Your task to perform on an android device: open app "Speedtest by Ookla" (install if not already installed) Image 0: 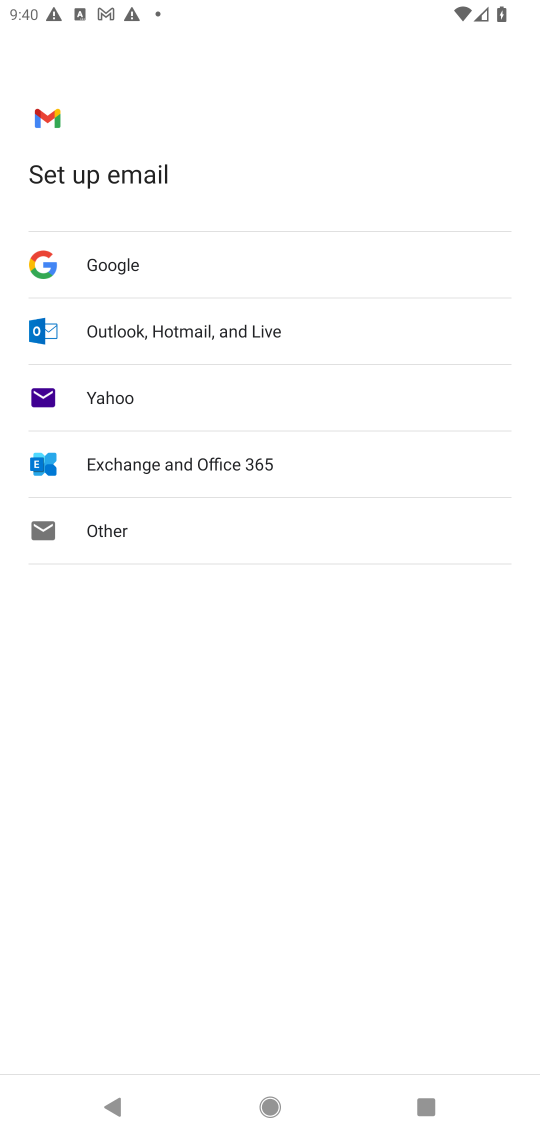
Step 0: press home button
Your task to perform on an android device: open app "Speedtest by Ookla" (install if not already installed) Image 1: 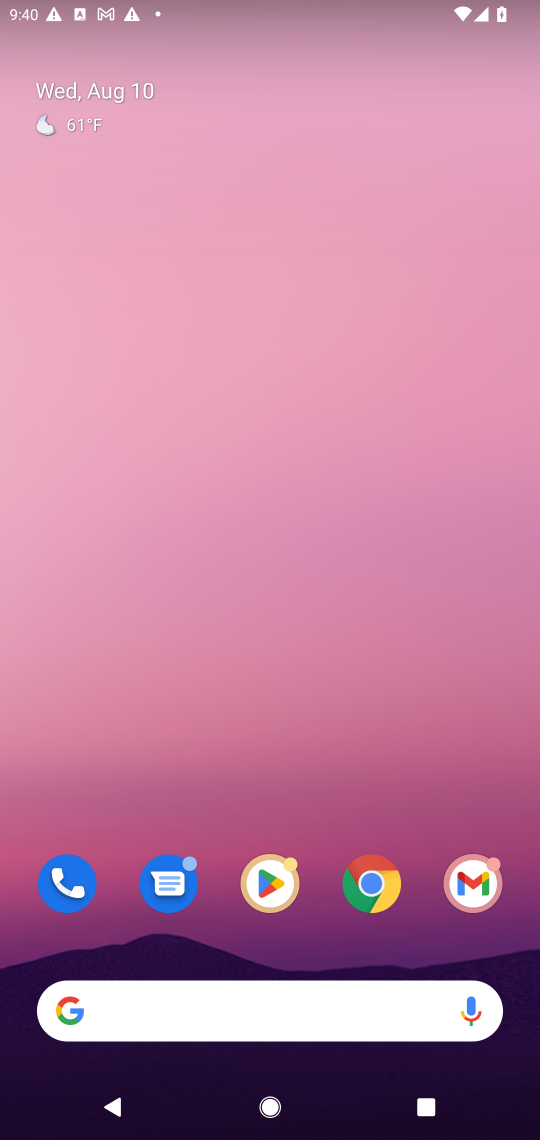
Step 1: click (273, 901)
Your task to perform on an android device: open app "Speedtest by Ookla" (install if not already installed) Image 2: 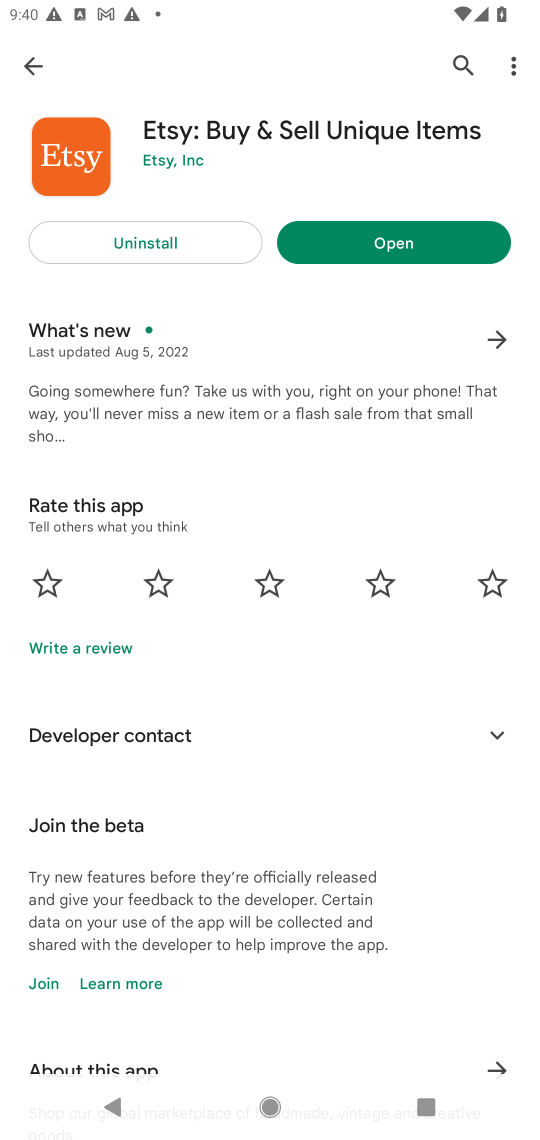
Step 2: click (455, 58)
Your task to perform on an android device: open app "Speedtest by Ookla" (install if not already installed) Image 3: 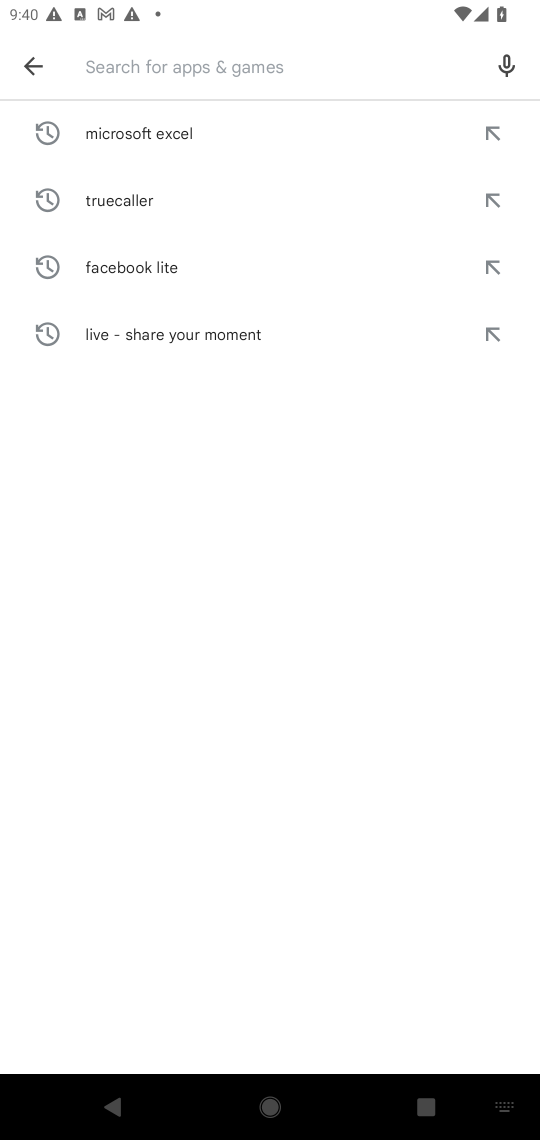
Step 3: type "Speedtest by Ookla"
Your task to perform on an android device: open app "Speedtest by Ookla" (install if not already installed) Image 4: 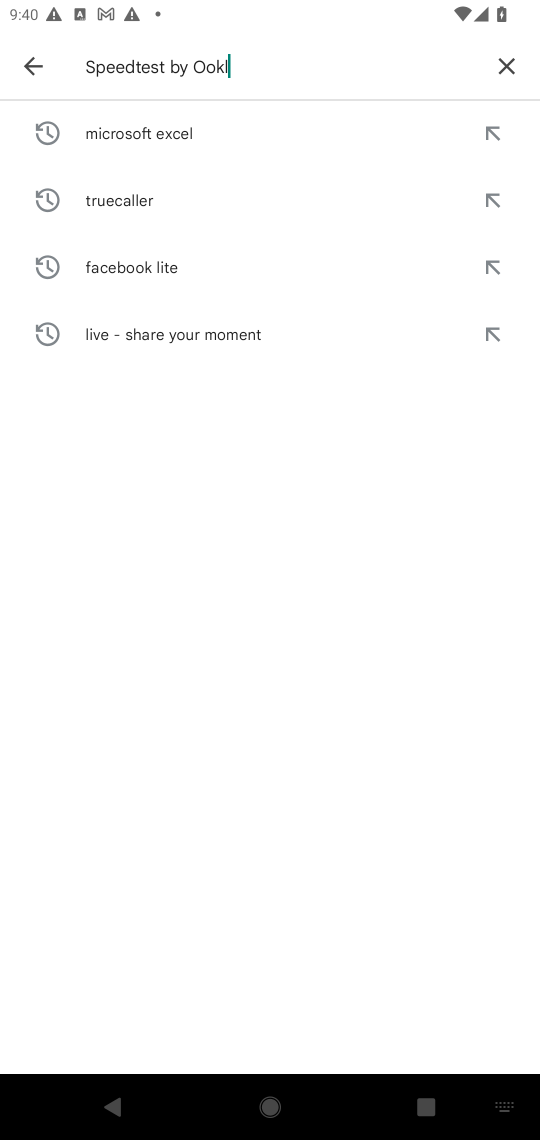
Step 4: type ""
Your task to perform on an android device: open app "Speedtest by Ookla" (install if not already installed) Image 5: 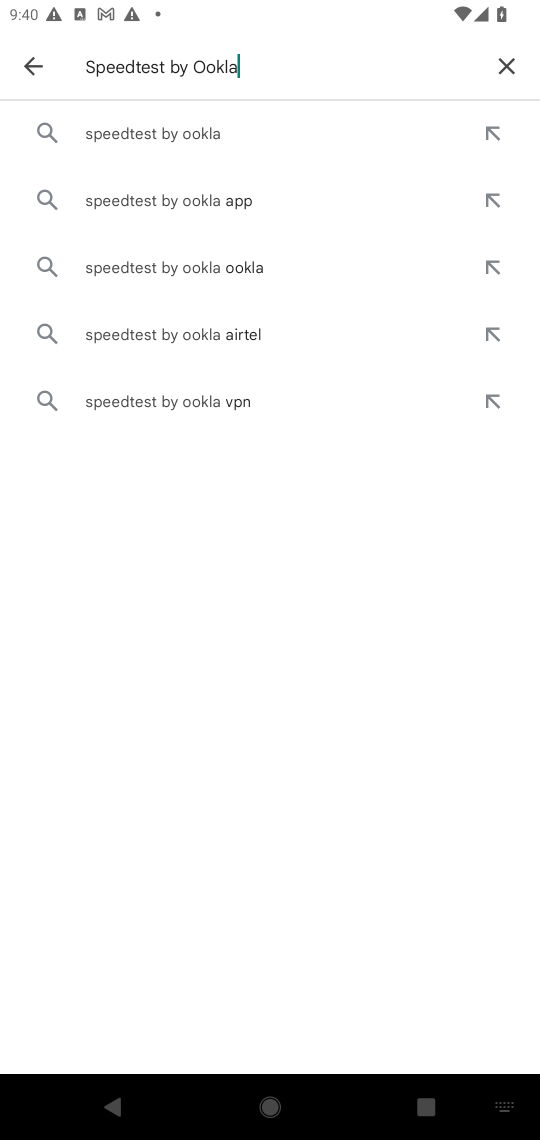
Step 5: click (266, 136)
Your task to perform on an android device: open app "Speedtest by Ookla" (install if not already installed) Image 6: 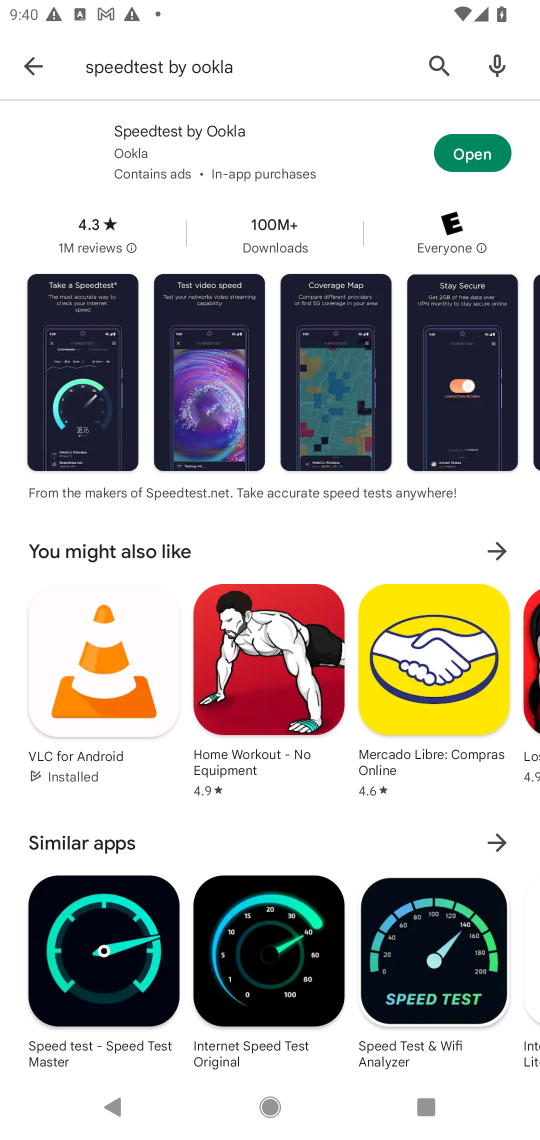
Step 6: click (464, 146)
Your task to perform on an android device: open app "Speedtest by Ookla" (install if not already installed) Image 7: 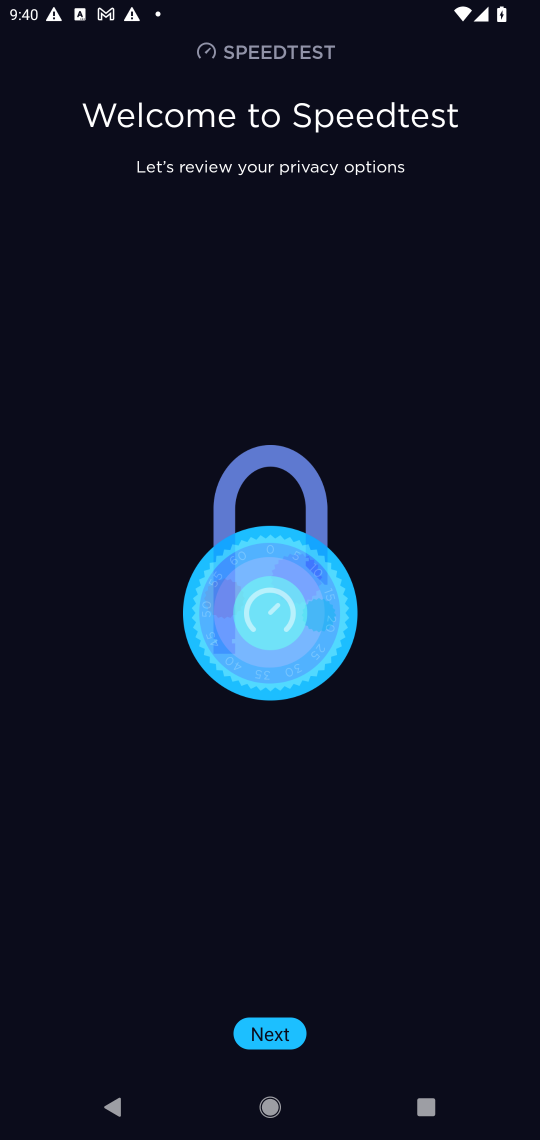
Step 7: task complete